Your task to perform on an android device: turn off smart reply in the gmail app Image 0: 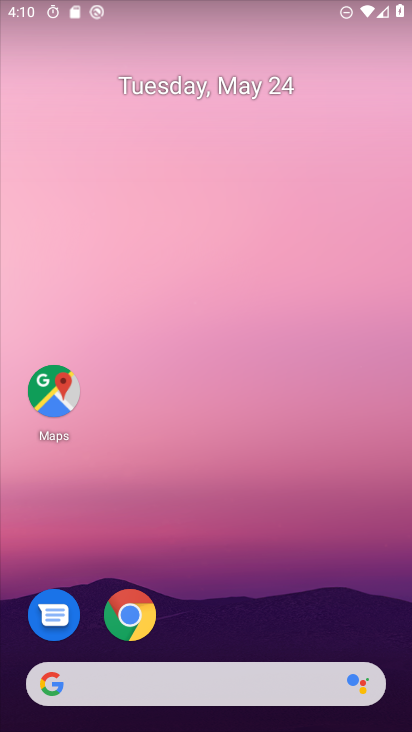
Step 0: drag from (207, 652) to (222, 301)
Your task to perform on an android device: turn off smart reply in the gmail app Image 1: 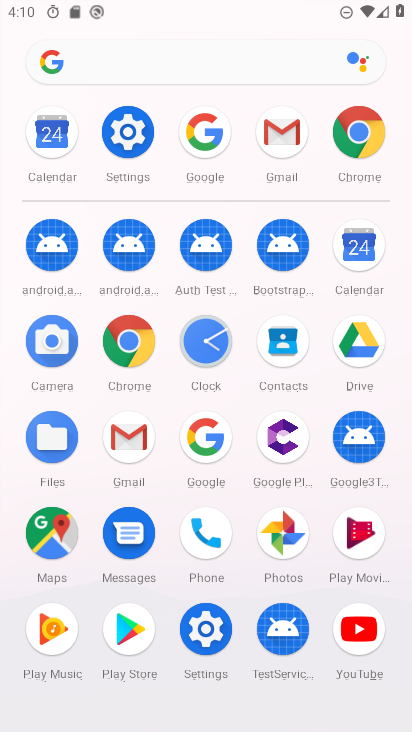
Step 1: click (132, 459)
Your task to perform on an android device: turn off smart reply in the gmail app Image 2: 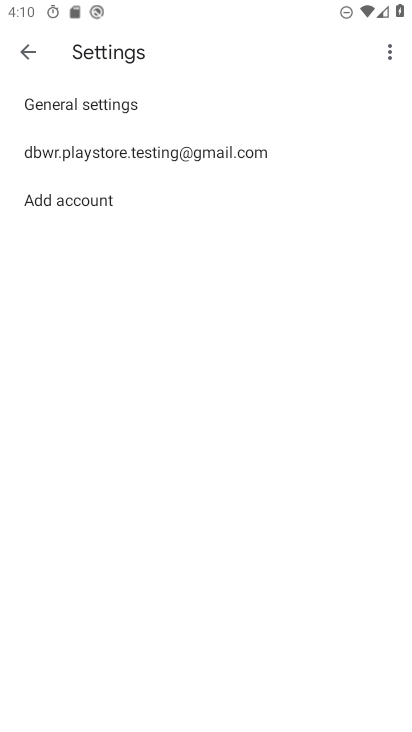
Step 2: press home button
Your task to perform on an android device: turn off smart reply in the gmail app Image 3: 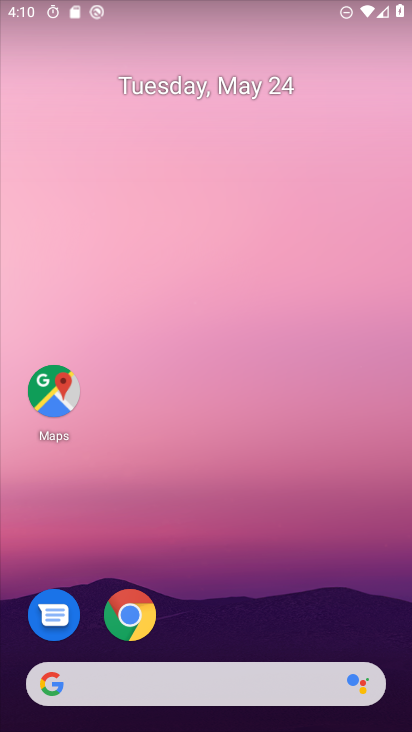
Step 3: drag from (256, 653) to (266, 324)
Your task to perform on an android device: turn off smart reply in the gmail app Image 4: 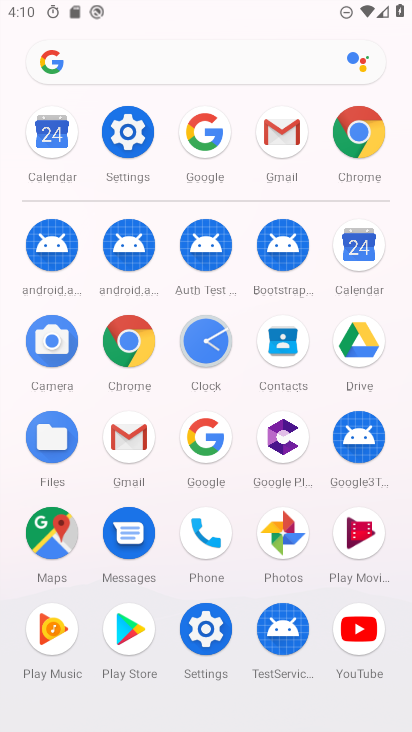
Step 4: click (283, 148)
Your task to perform on an android device: turn off smart reply in the gmail app Image 5: 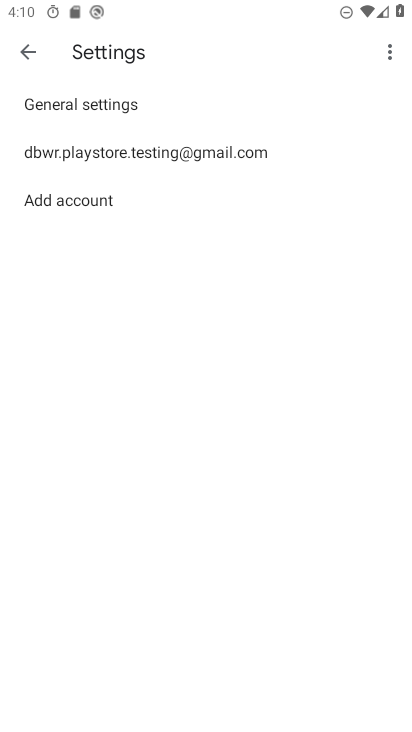
Step 5: click (148, 164)
Your task to perform on an android device: turn off smart reply in the gmail app Image 6: 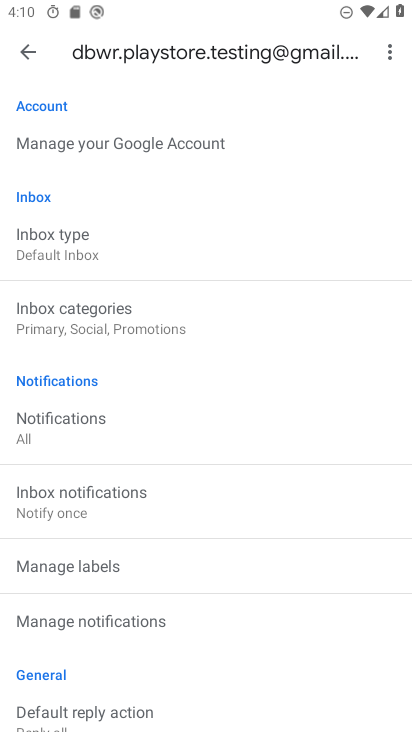
Step 6: drag from (133, 569) to (183, 329)
Your task to perform on an android device: turn off smart reply in the gmail app Image 7: 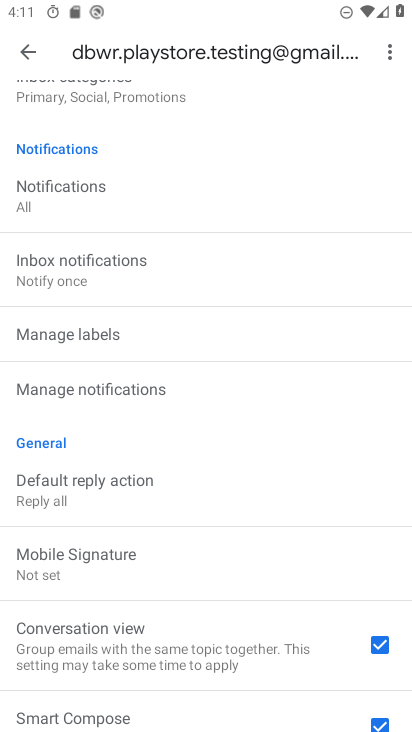
Step 7: drag from (166, 597) to (214, 350)
Your task to perform on an android device: turn off smart reply in the gmail app Image 8: 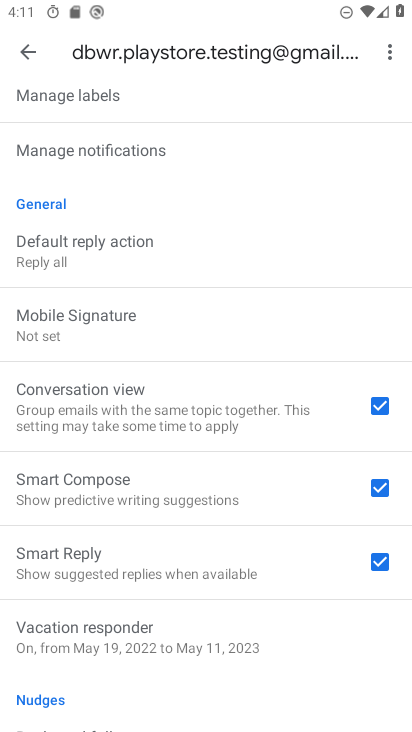
Step 8: click (387, 561)
Your task to perform on an android device: turn off smart reply in the gmail app Image 9: 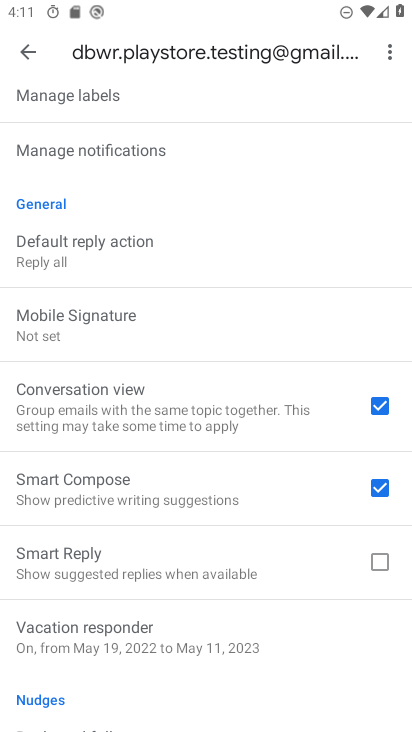
Step 9: task complete